Your task to perform on an android device: Search for pizza restaurants on Maps Image 0: 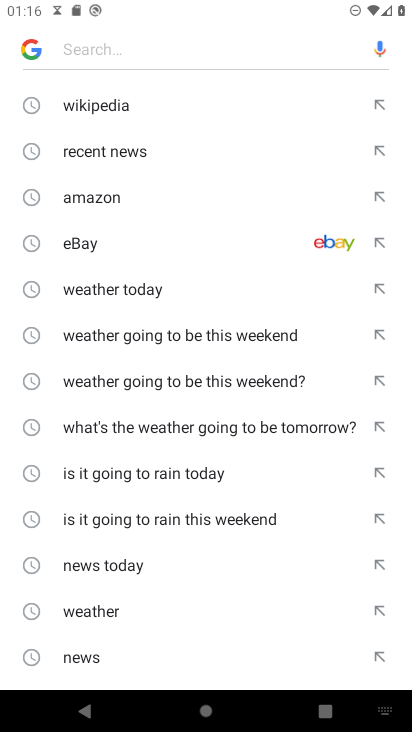
Step 0: press home button
Your task to perform on an android device: Search for pizza restaurants on Maps Image 1: 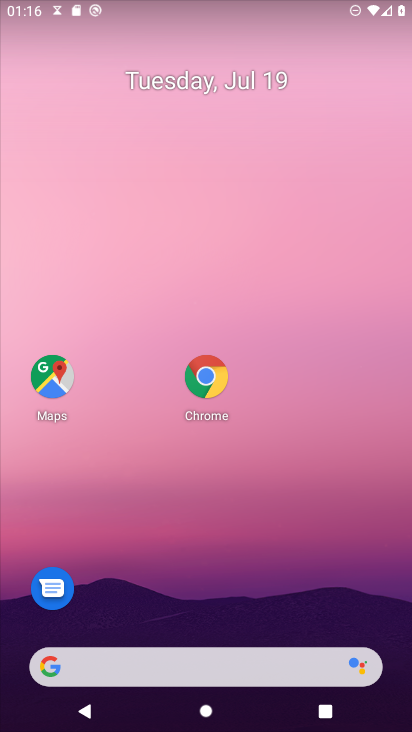
Step 1: click (49, 365)
Your task to perform on an android device: Search for pizza restaurants on Maps Image 2: 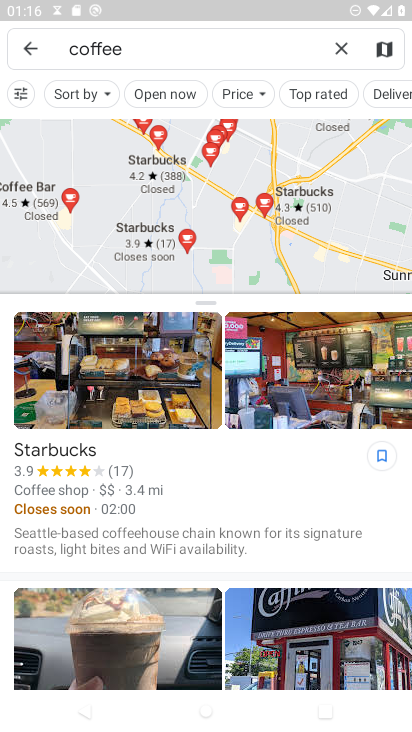
Step 2: click (338, 48)
Your task to perform on an android device: Search for pizza restaurants on Maps Image 3: 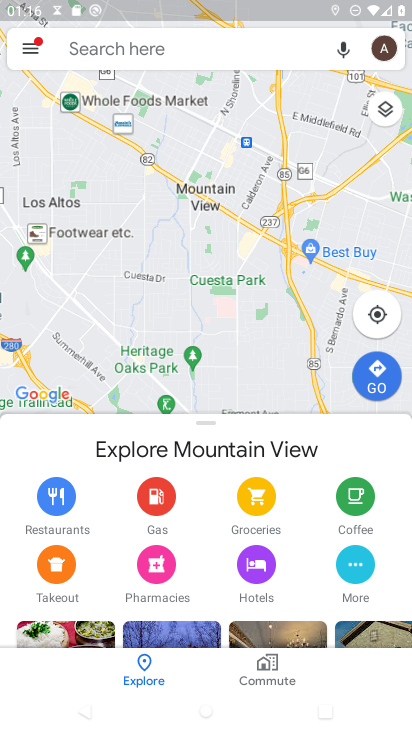
Step 3: type "pizza restaurants"
Your task to perform on an android device: Search for pizza restaurants on Maps Image 4: 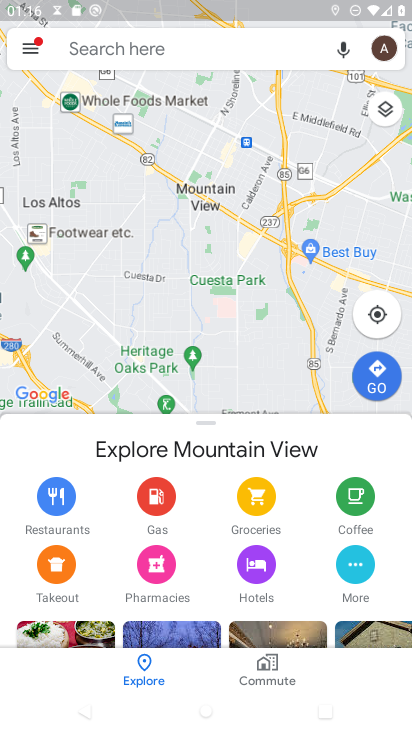
Step 4: click (114, 48)
Your task to perform on an android device: Search for pizza restaurants on Maps Image 5: 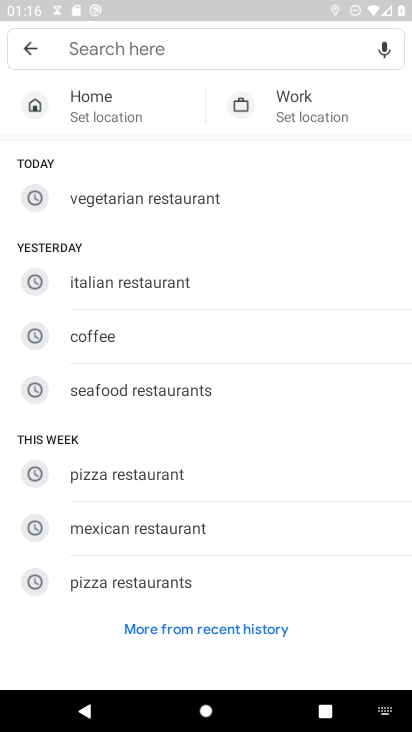
Step 5: click (91, 43)
Your task to perform on an android device: Search for pizza restaurants on Maps Image 6: 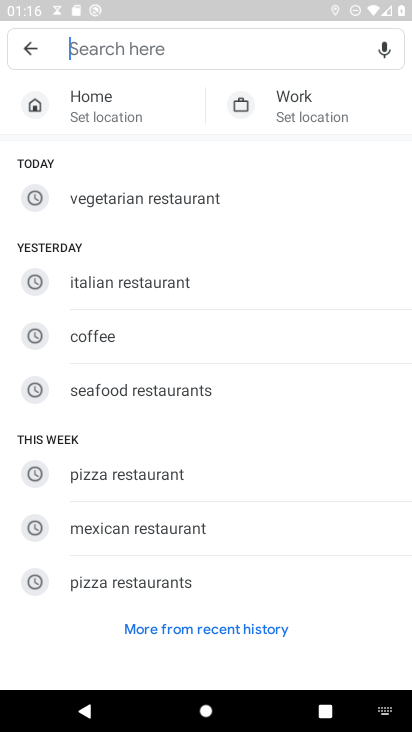
Step 6: click (112, 45)
Your task to perform on an android device: Search for pizza restaurants on Maps Image 7: 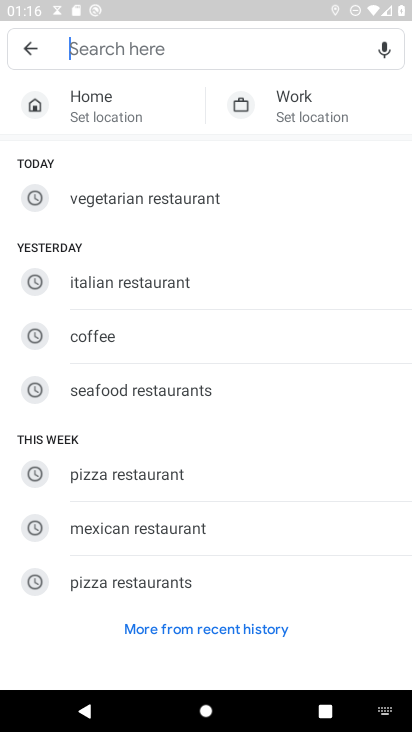
Step 7: type "pizza restaurants"
Your task to perform on an android device: Search for pizza restaurants on Maps Image 8: 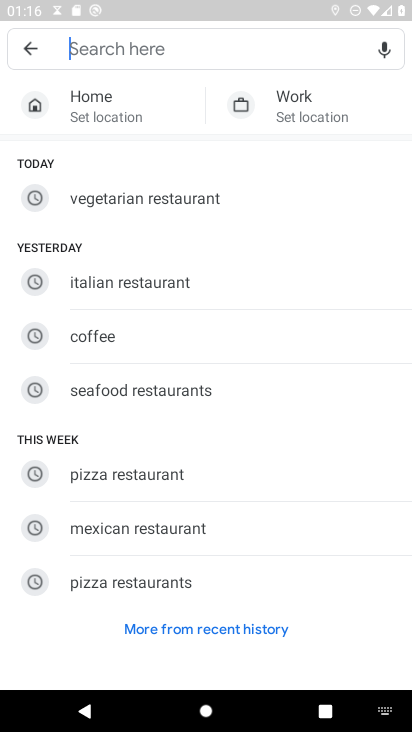
Step 8: click (90, 50)
Your task to perform on an android device: Search for pizza restaurants on Maps Image 9: 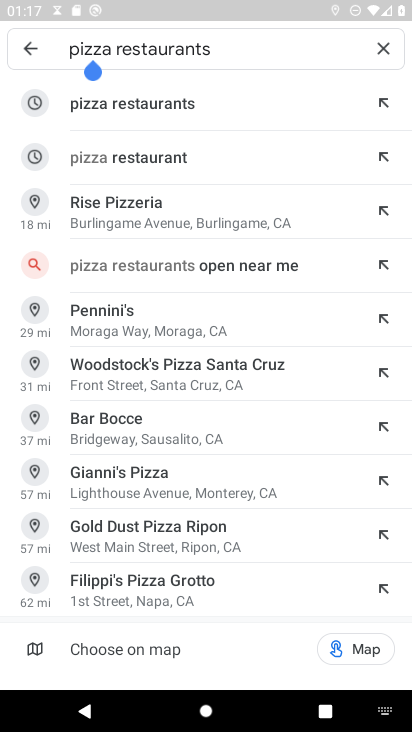
Step 9: press enter
Your task to perform on an android device: Search for pizza restaurants on Maps Image 10: 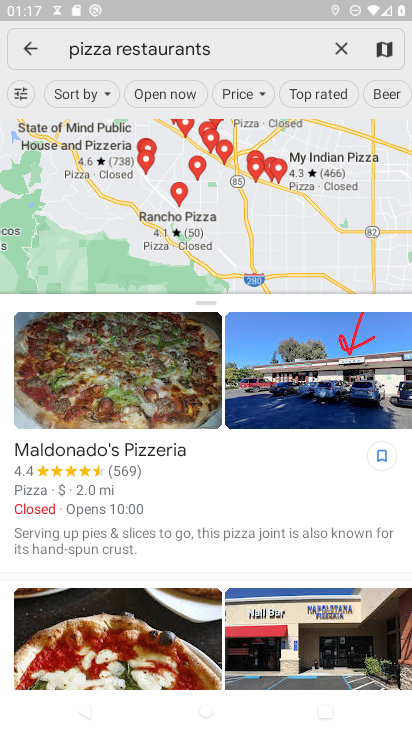
Step 10: task complete